Your task to perform on an android device: Open calendar and show me the second week of next month Image 0: 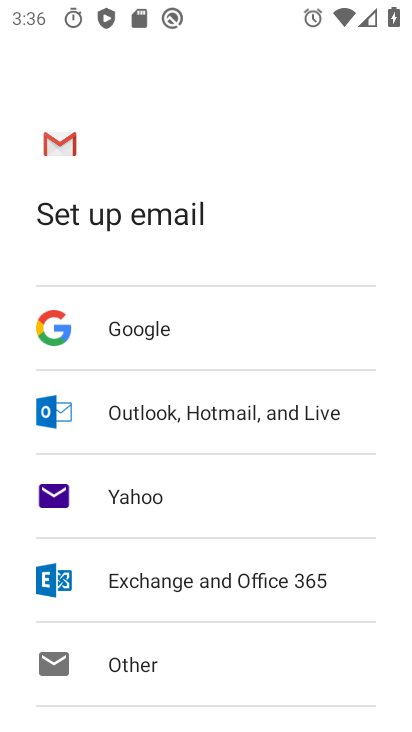
Step 0: press home button
Your task to perform on an android device: Open calendar and show me the second week of next month Image 1: 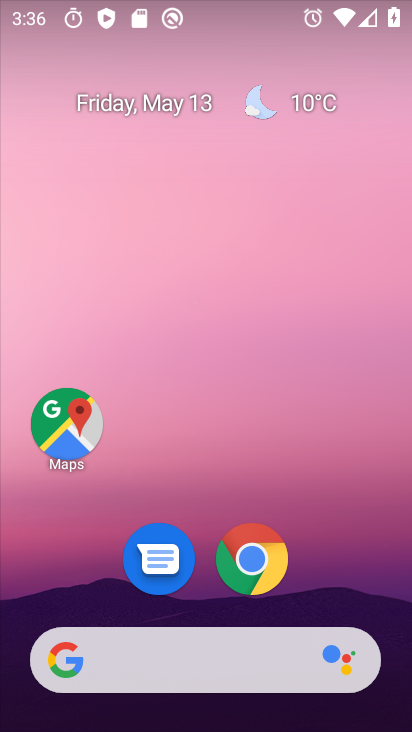
Step 1: drag from (208, 602) to (216, 225)
Your task to perform on an android device: Open calendar and show me the second week of next month Image 2: 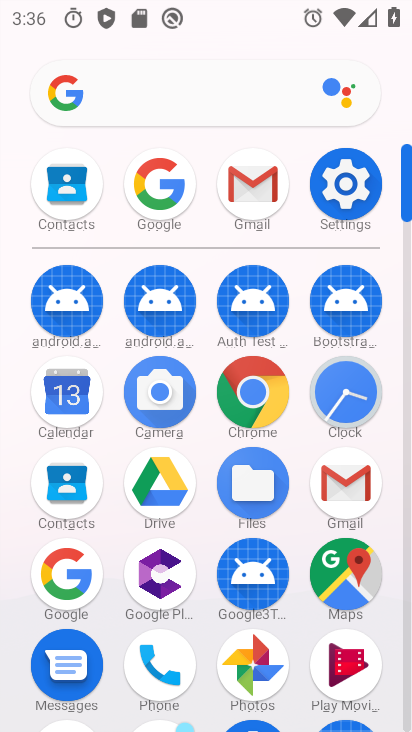
Step 2: click (88, 395)
Your task to perform on an android device: Open calendar and show me the second week of next month Image 3: 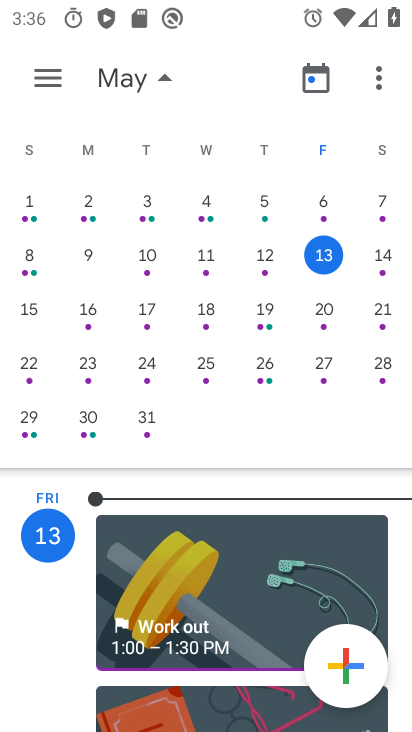
Step 3: click (166, 80)
Your task to perform on an android device: Open calendar and show me the second week of next month Image 4: 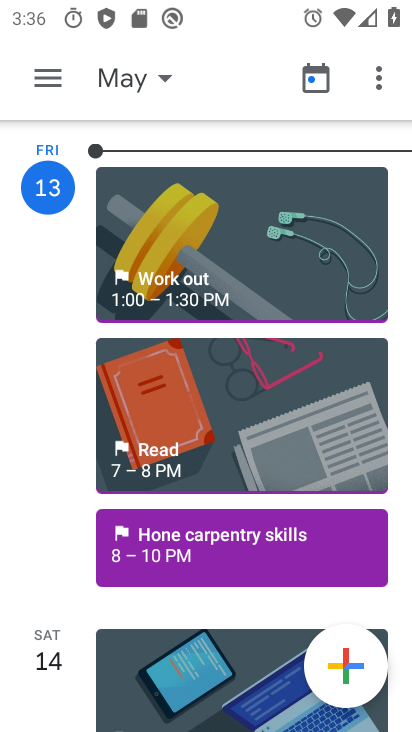
Step 4: click (144, 90)
Your task to perform on an android device: Open calendar and show me the second week of next month Image 5: 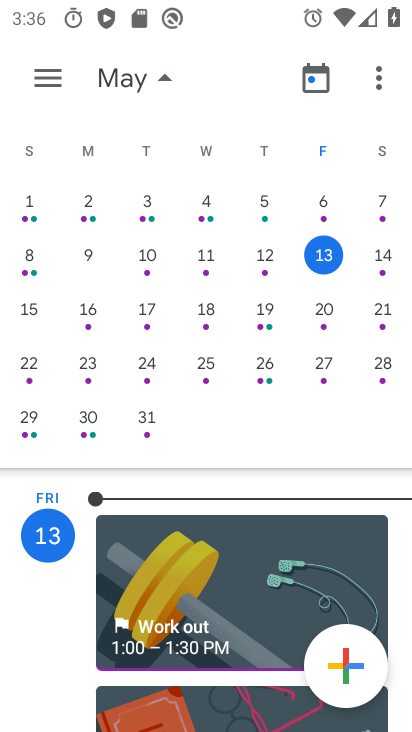
Step 5: drag from (294, 304) to (7, 322)
Your task to perform on an android device: Open calendar and show me the second week of next month Image 6: 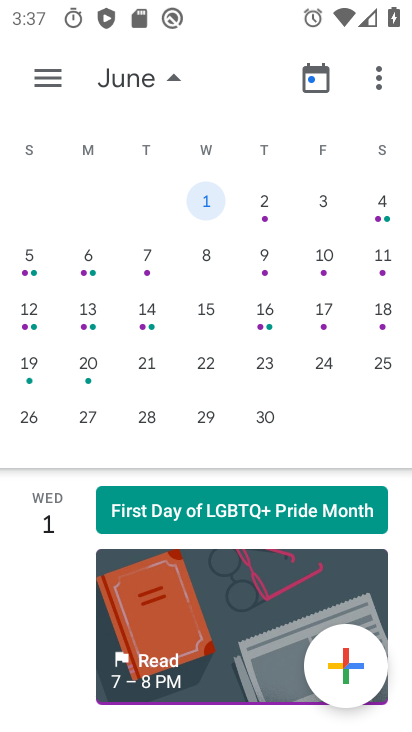
Step 6: click (31, 255)
Your task to perform on an android device: Open calendar and show me the second week of next month Image 7: 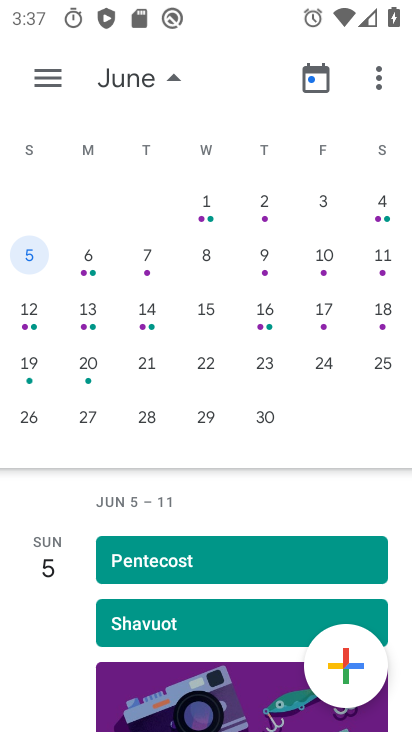
Step 7: task complete